Your task to perform on an android device: delete location history Image 0: 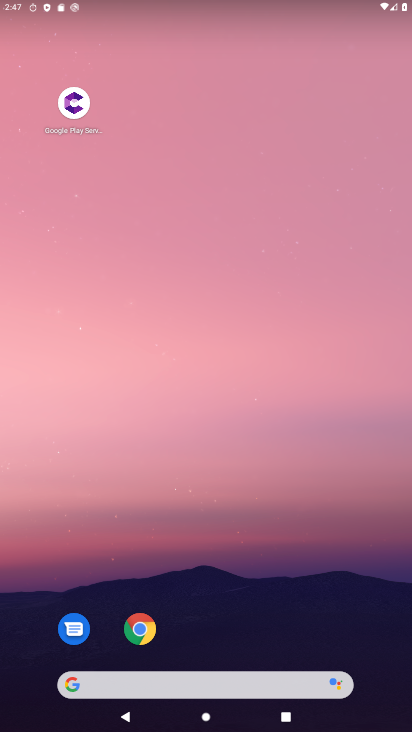
Step 0: drag from (273, 620) to (331, 77)
Your task to perform on an android device: delete location history Image 1: 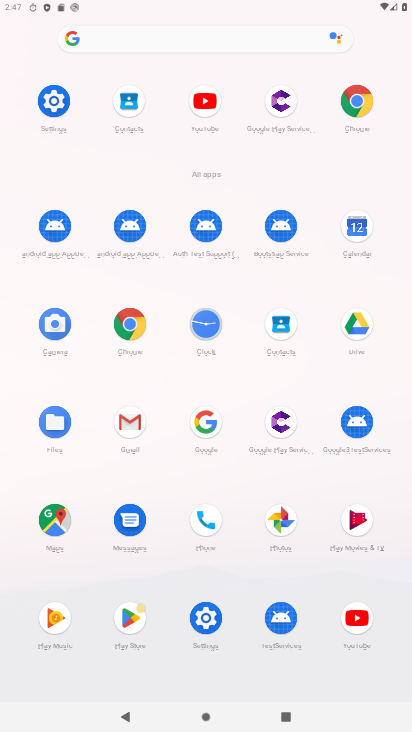
Step 1: click (39, 511)
Your task to perform on an android device: delete location history Image 2: 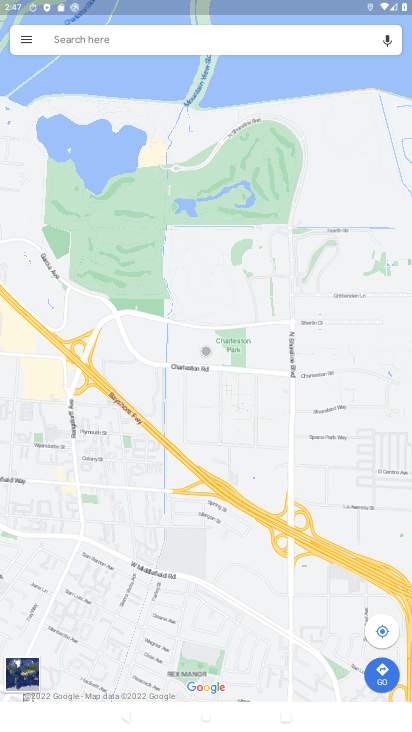
Step 2: click (30, 36)
Your task to perform on an android device: delete location history Image 3: 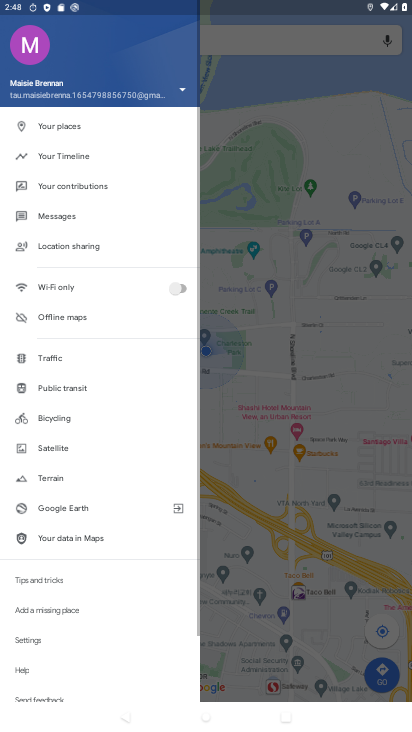
Step 3: click (49, 159)
Your task to perform on an android device: delete location history Image 4: 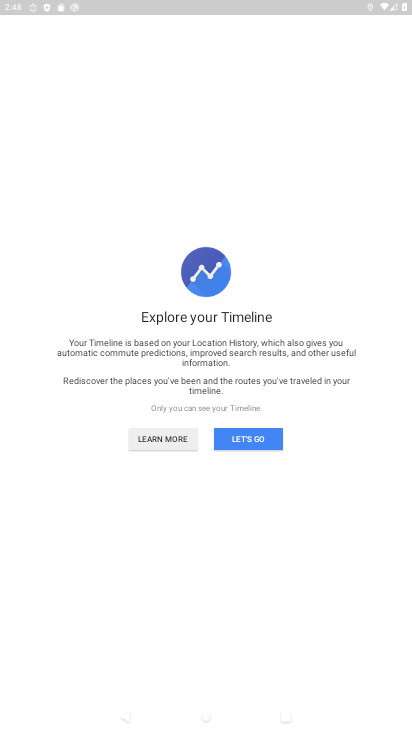
Step 4: click (248, 429)
Your task to perform on an android device: delete location history Image 5: 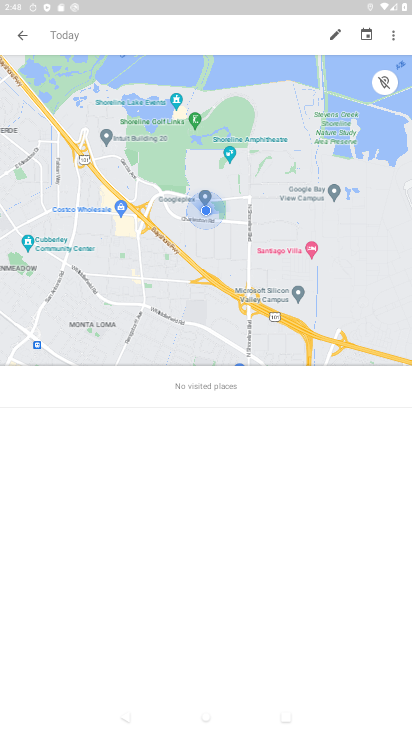
Step 5: click (388, 32)
Your task to perform on an android device: delete location history Image 6: 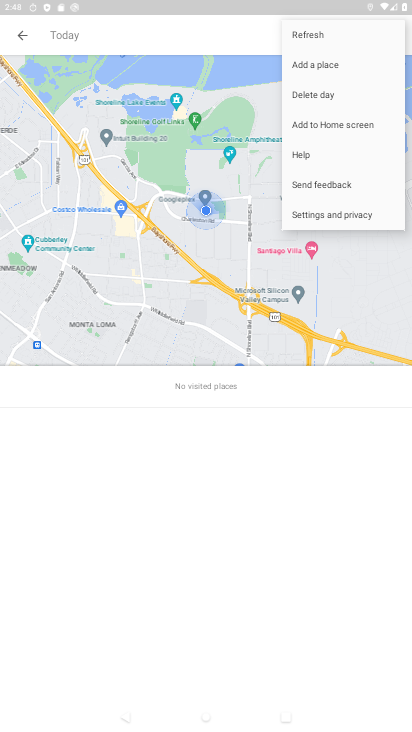
Step 6: click (312, 208)
Your task to perform on an android device: delete location history Image 7: 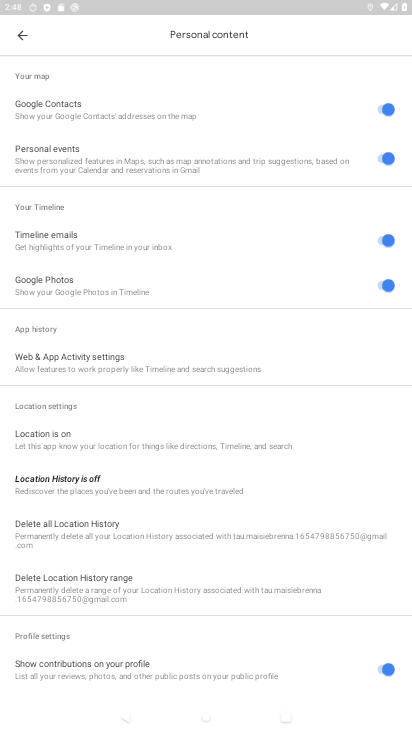
Step 7: drag from (183, 610) to (173, 334)
Your task to perform on an android device: delete location history Image 8: 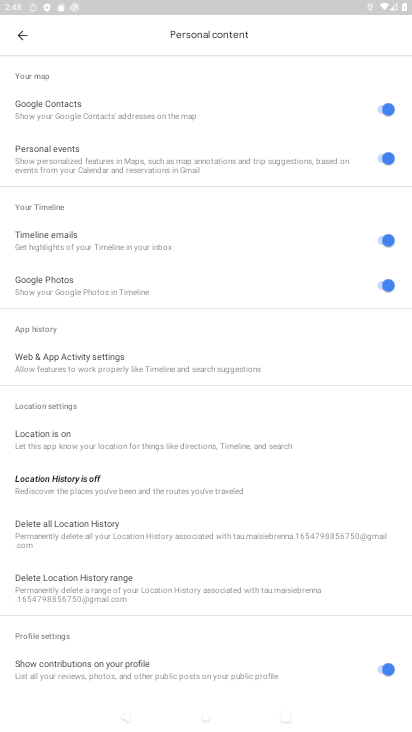
Step 8: click (92, 528)
Your task to perform on an android device: delete location history Image 9: 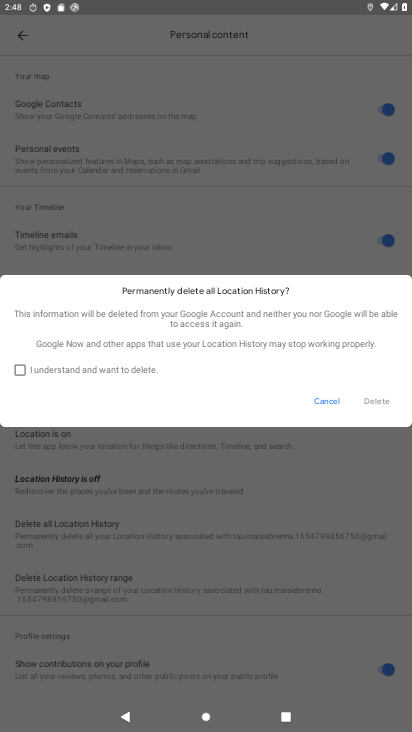
Step 9: click (379, 390)
Your task to perform on an android device: delete location history Image 10: 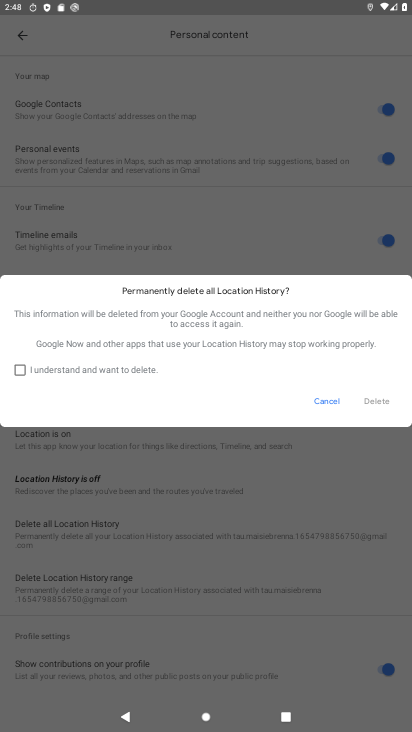
Step 10: click (379, 390)
Your task to perform on an android device: delete location history Image 11: 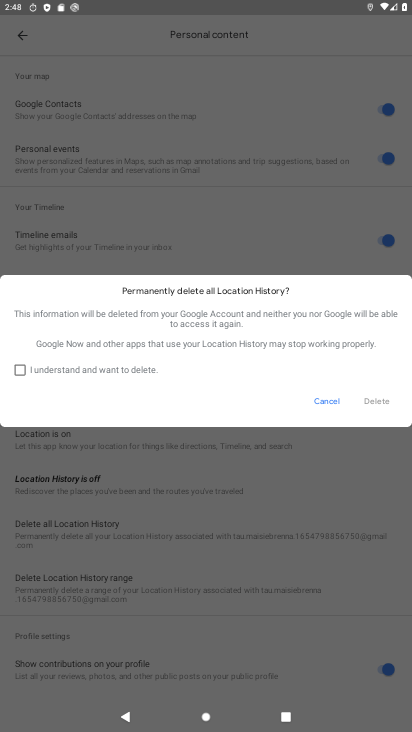
Step 11: click (26, 370)
Your task to perform on an android device: delete location history Image 12: 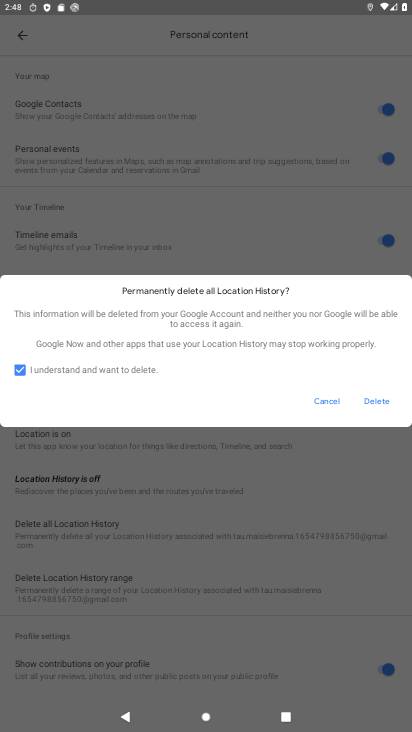
Step 12: click (363, 398)
Your task to perform on an android device: delete location history Image 13: 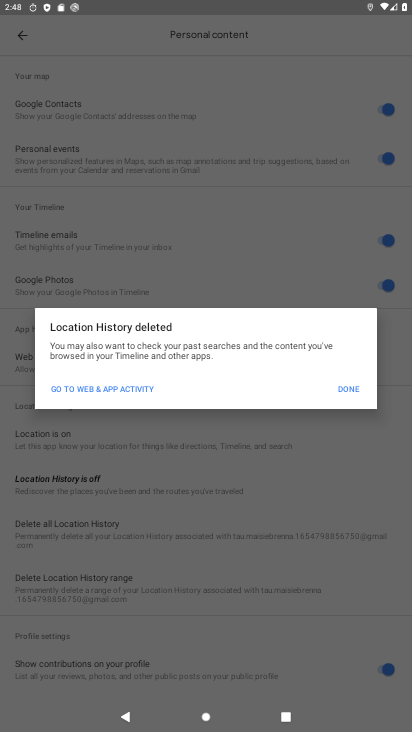
Step 13: click (338, 382)
Your task to perform on an android device: delete location history Image 14: 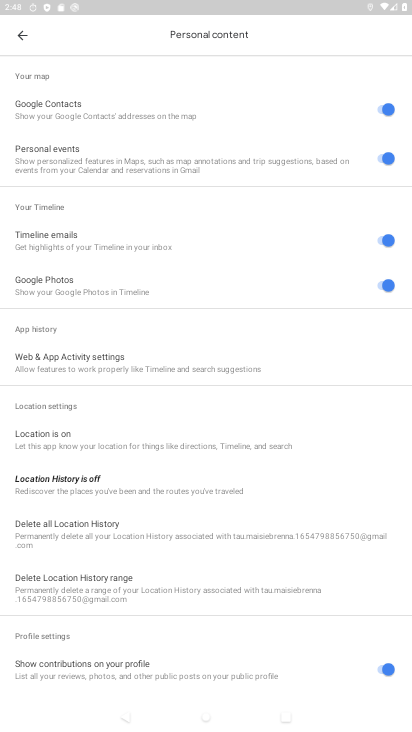
Step 14: task complete